Your task to perform on an android device: Open Yahoo.com Image 0: 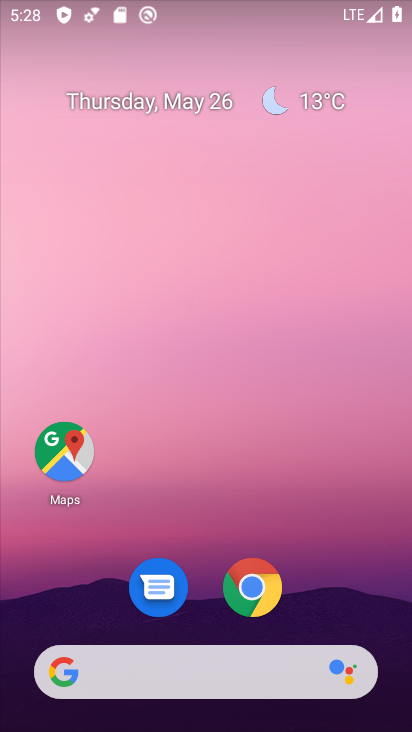
Step 0: click (252, 588)
Your task to perform on an android device: Open Yahoo.com Image 1: 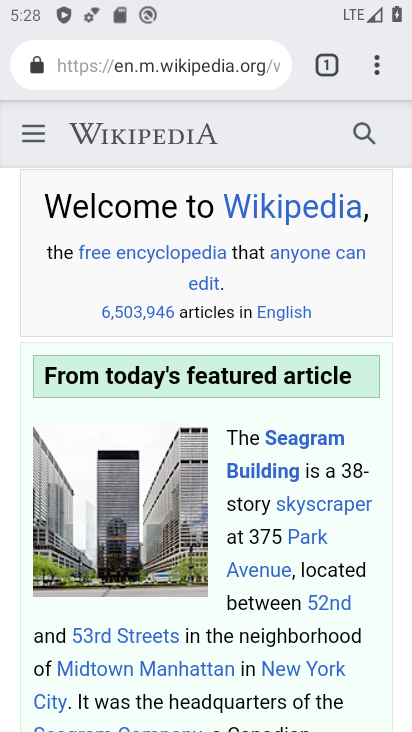
Step 1: click (376, 68)
Your task to perform on an android device: Open Yahoo.com Image 2: 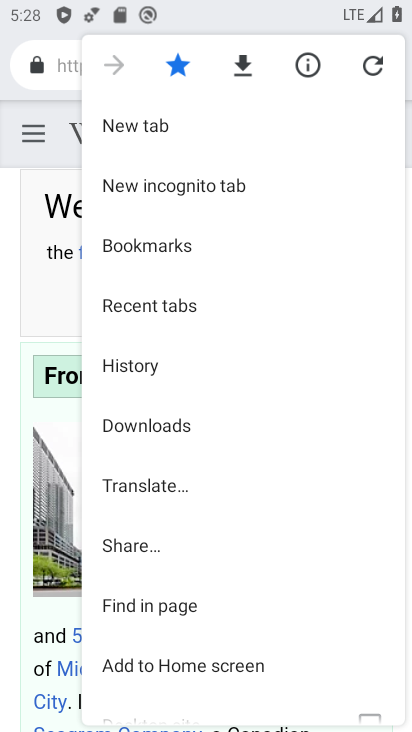
Step 2: click (129, 123)
Your task to perform on an android device: Open Yahoo.com Image 3: 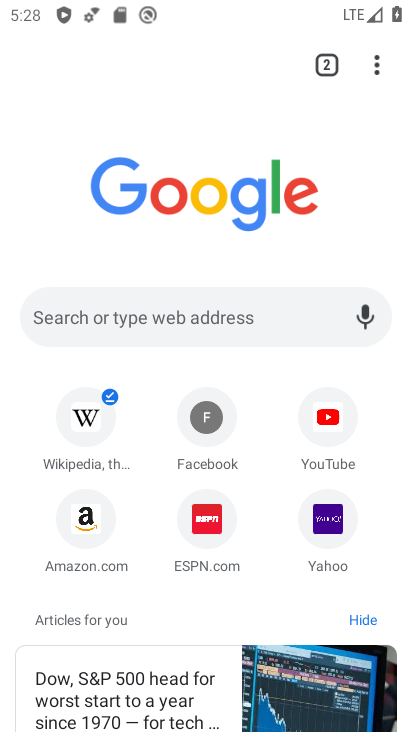
Step 3: click (323, 523)
Your task to perform on an android device: Open Yahoo.com Image 4: 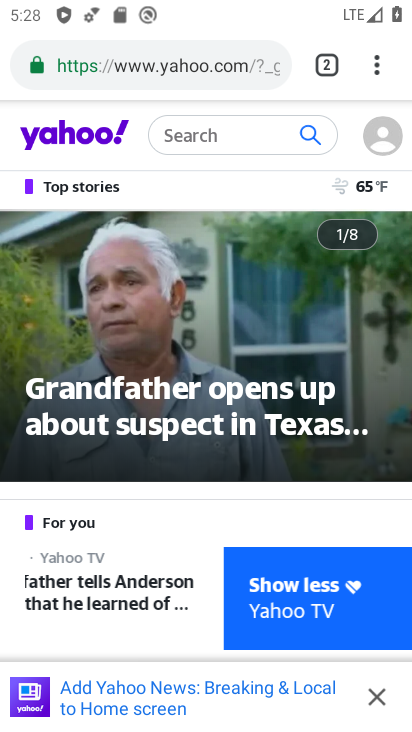
Step 4: task complete